Your task to perform on an android device: turn off data saver in the chrome app Image 0: 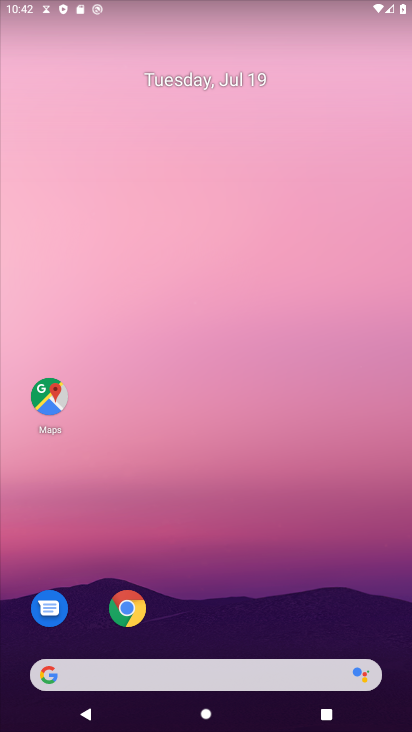
Step 0: click (124, 601)
Your task to perform on an android device: turn off data saver in the chrome app Image 1: 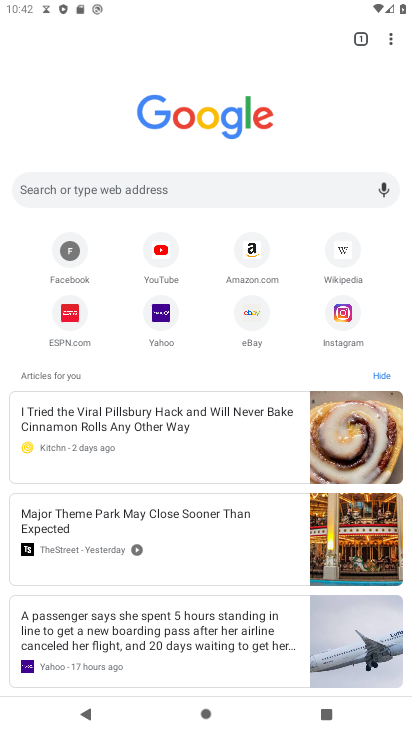
Step 1: click (394, 35)
Your task to perform on an android device: turn off data saver in the chrome app Image 2: 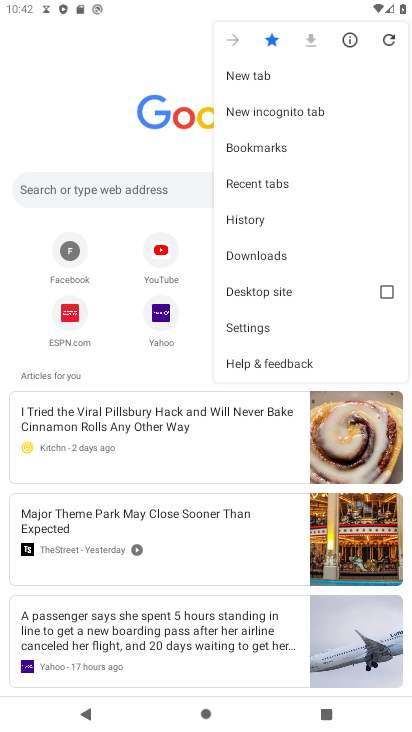
Step 2: click (254, 324)
Your task to perform on an android device: turn off data saver in the chrome app Image 3: 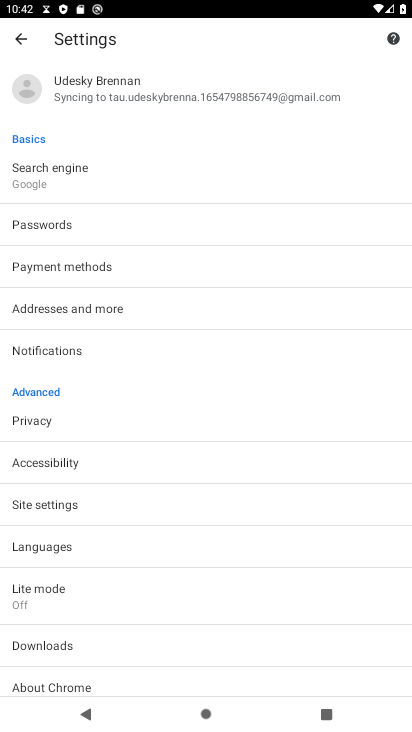
Step 3: click (71, 617)
Your task to perform on an android device: turn off data saver in the chrome app Image 4: 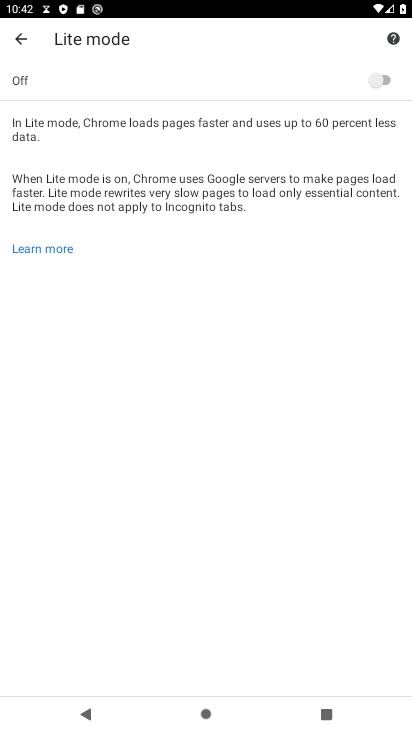
Step 4: task complete